Your task to perform on an android device: Is it going to rain today? Image 0: 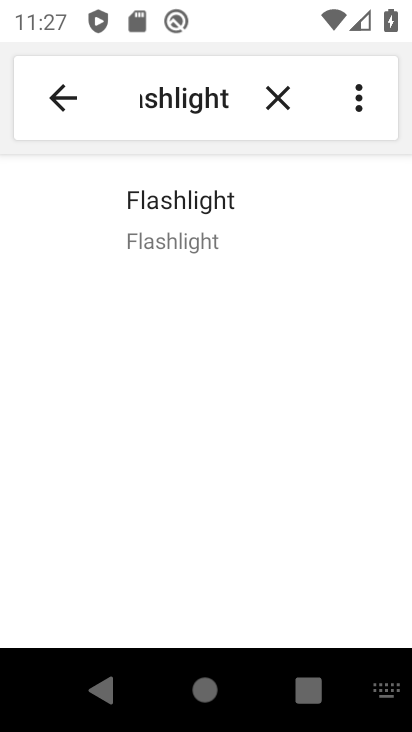
Step 0: press home button
Your task to perform on an android device: Is it going to rain today? Image 1: 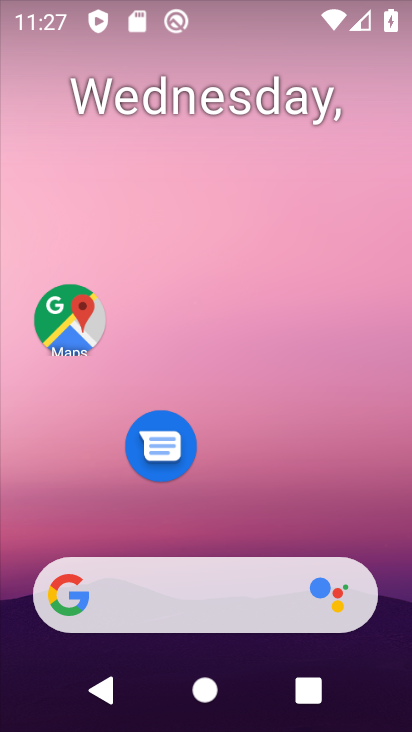
Step 1: drag from (248, 520) to (278, 86)
Your task to perform on an android device: Is it going to rain today? Image 2: 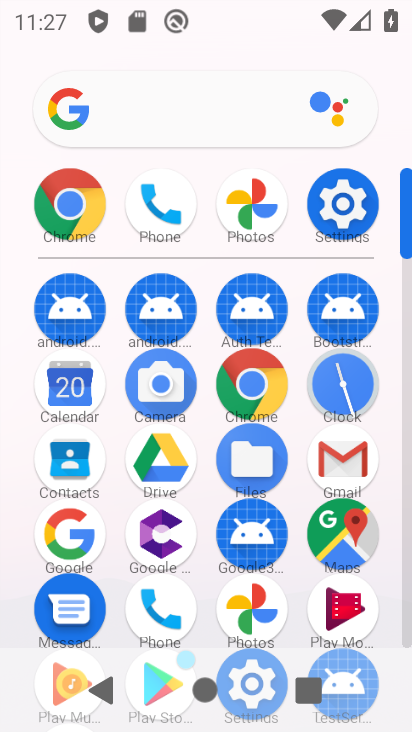
Step 2: click (235, 394)
Your task to perform on an android device: Is it going to rain today? Image 3: 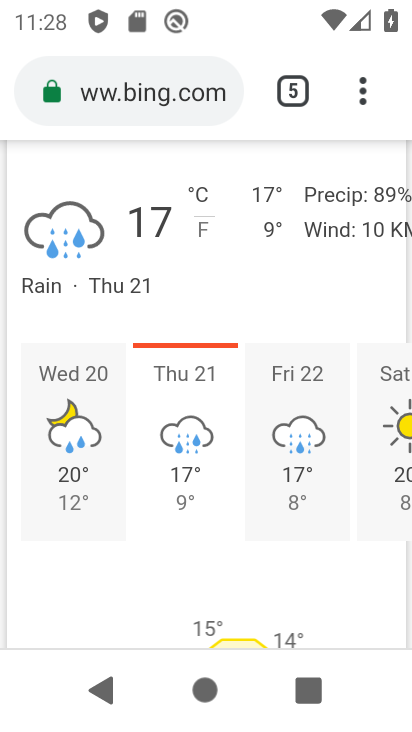
Step 3: task complete